Your task to perform on an android device: Set the phone to "Do not disturb". Image 0: 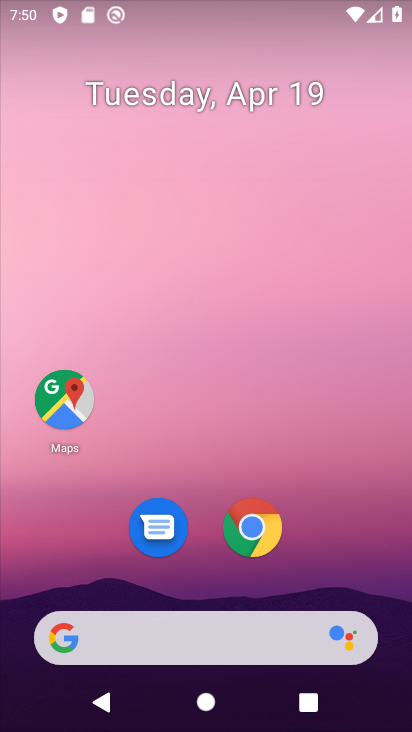
Step 0: drag from (188, 577) to (246, 243)
Your task to perform on an android device: Set the phone to "Do not disturb". Image 1: 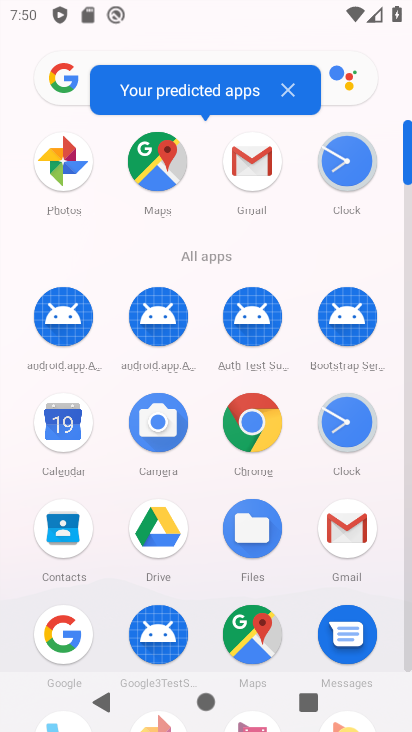
Step 1: drag from (212, 675) to (227, 502)
Your task to perform on an android device: Set the phone to "Do not disturb". Image 2: 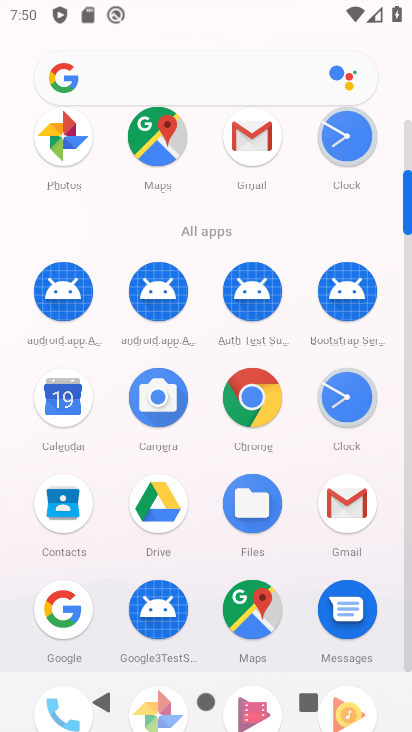
Step 2: drag from (180, 670) to (228, 422)
Your task to perform on an android device: Set the phone to "Do not disturb". Image 3: 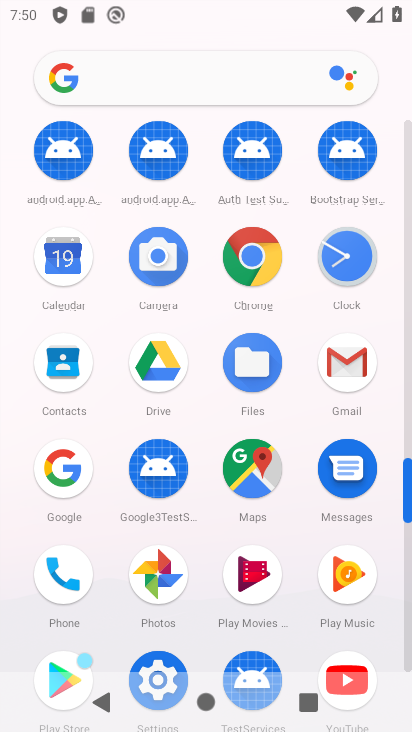
Step 3: click (151, 660)
Your task to perform on an android device: Set the phone to "Do not disturb". Image 4: 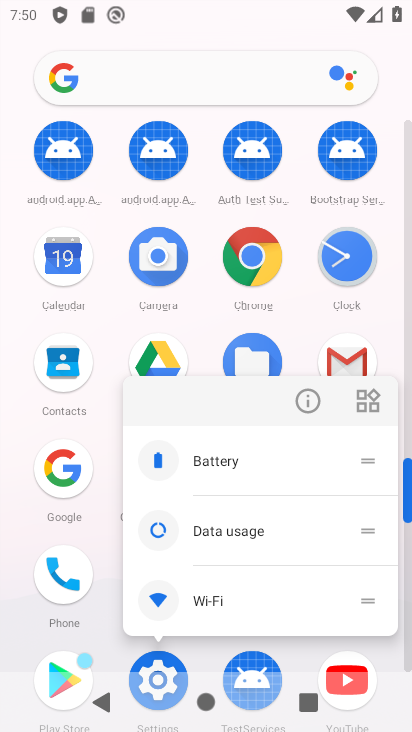
Step 4: click (158, 666)
Your task to perform on an android device: Set the phone to "Do not disturb". Image 5: 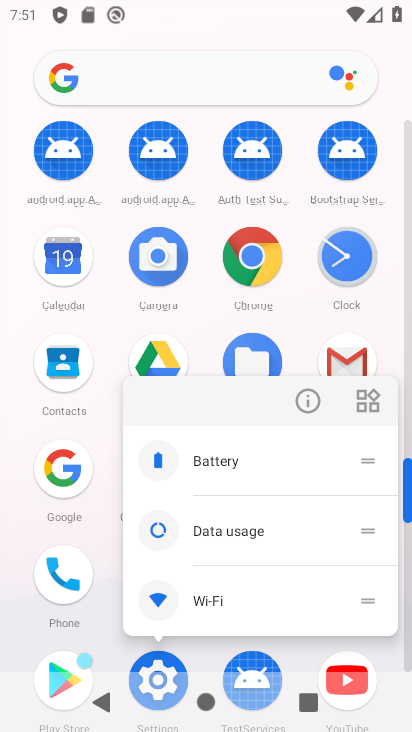
Step 5: click (157, 672)
Your task to perform on an android device: Set the phone to "Do not disturb". Image 6: 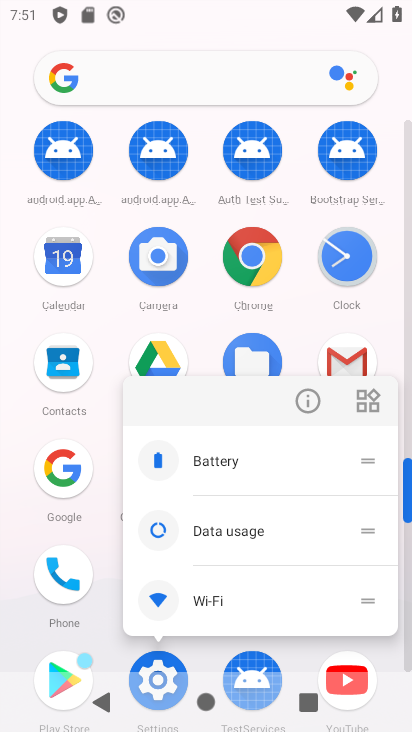
Step 6: click (156, 677)
Your task to perform on an android device: Set the phone to "Do not disturb". Image 7: 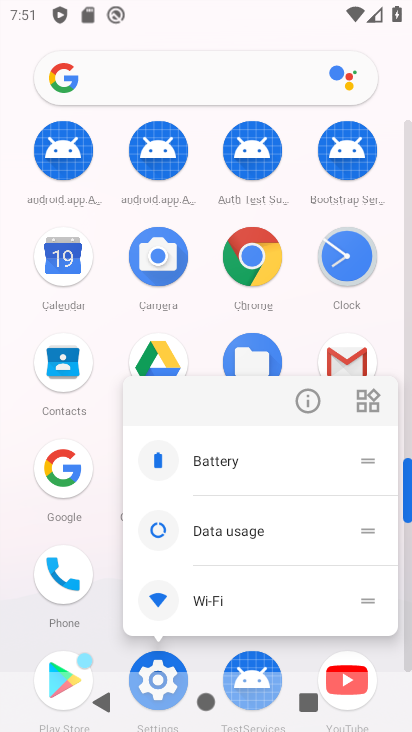
Step 7: click (142, 667)
Your task to perform on an android device: Set the phone to "Do not disturb". Image 8: 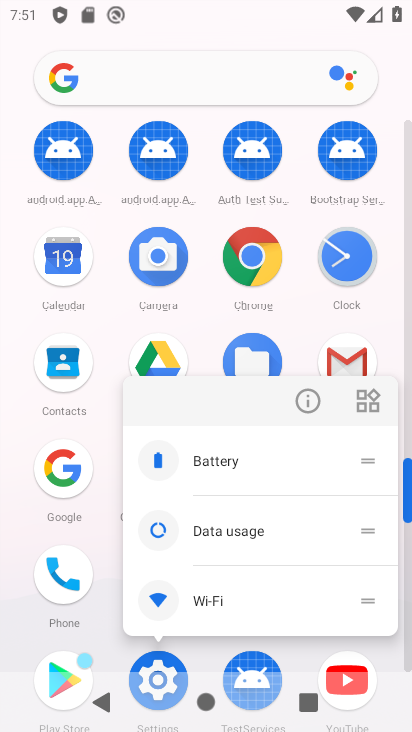
Step 8: click (158, 654)
Your task to perform on an android device: Set the phone to "Do not disturb". Image 9: 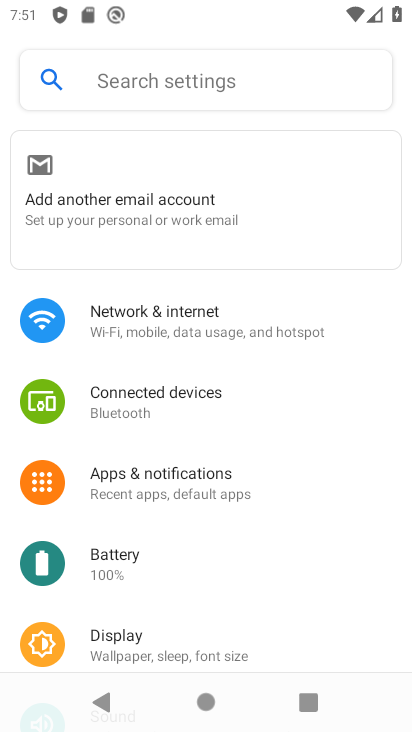
Step 9: click (220, 486)
Your task to perform on an android device: Set the phone to "Do not disturb". Image 10: 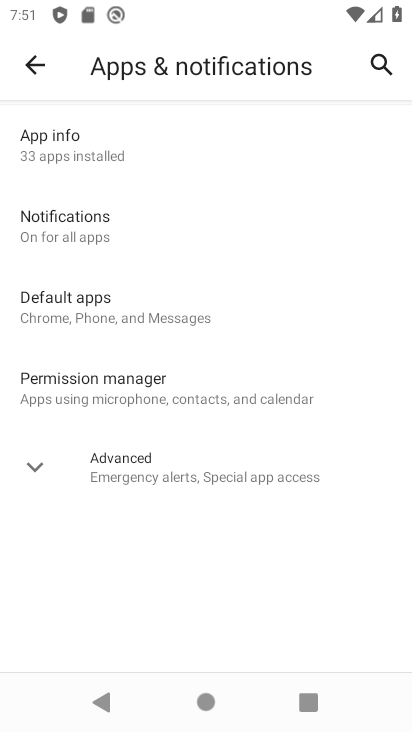
Step 10: click (141, 229)
Your task to perform on an android device: Set the phone to "Do not disturb". Image 11: 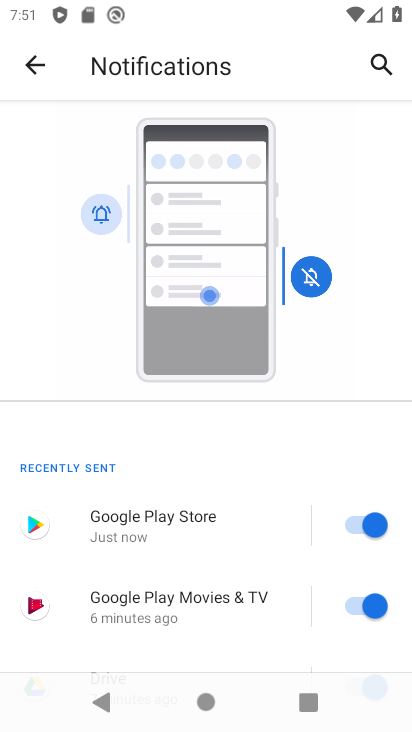
Step 11: drag from (201, 617) to (343, 76)
Your task to perform on an android device: Set the phone to "Do not disturb". Image 12: 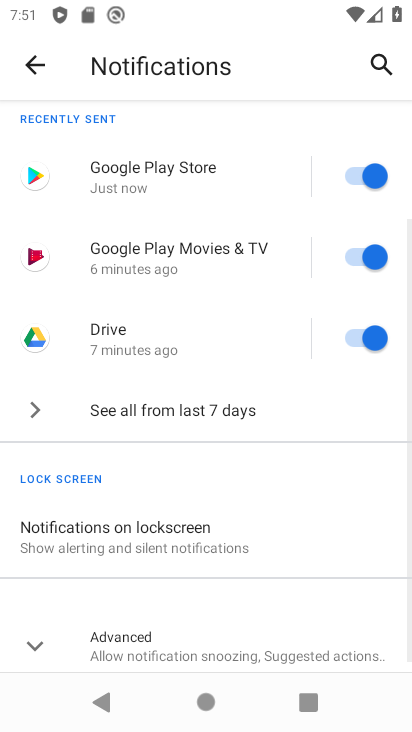
Step 12: drag from (231, 603) to (311, 294)
Your task to perform on an android device: Set the phone to "Do not disturb". Image 13: 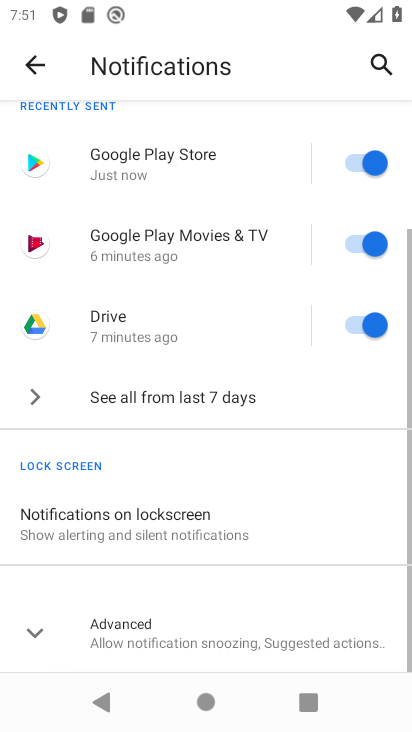
Step 13: click (242, 624)
Your task to perform on an android device: Set the phone to "Do not disturb". Image 14: 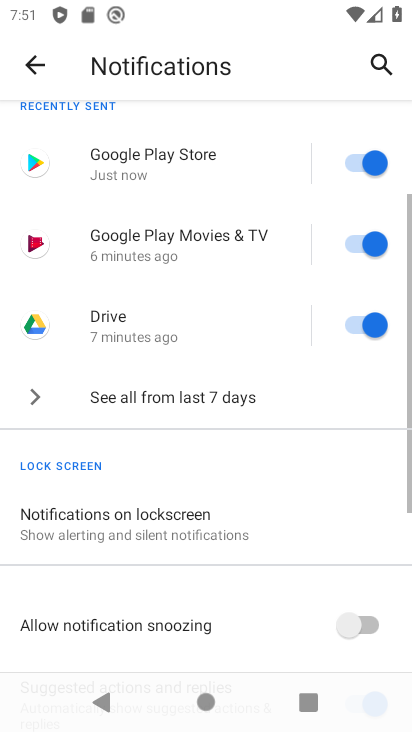
Step 14: drag from (225, 642) to (404, 21)
Your task to perform on an android device: Set the phone to "Do not disturb". Image 15: 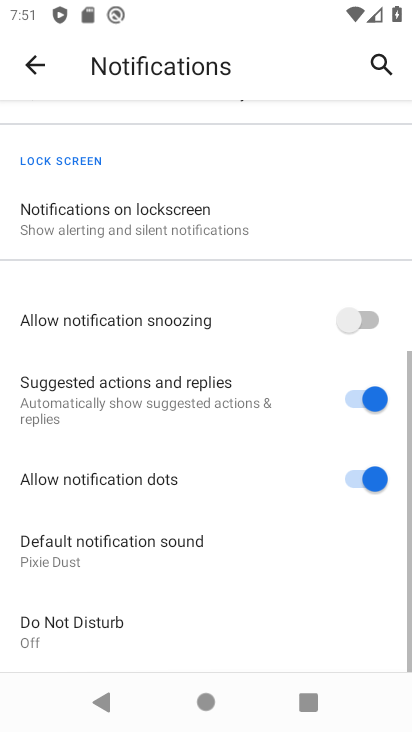
Step 15: click (184, 629)
Your task to perform on an android device: Set the phone to "Do not disturb". Image 16: 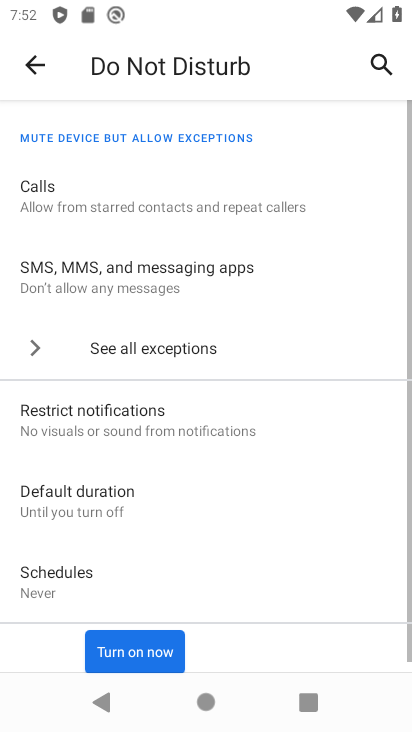
Step 16: click (133, 657)
Your task to perform on an android device: Set the phone to "Do not disturb". Image 17: 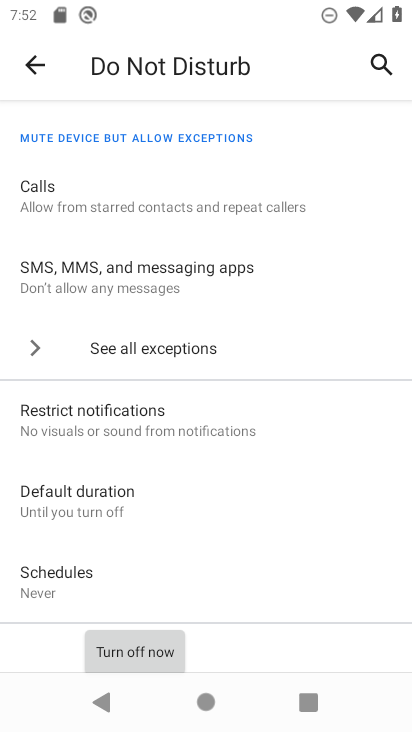
Step 17: task complete